Your task to perform on an android device: Clear the cart on costco. Add logitech g502 to the cart on costco Image 0: 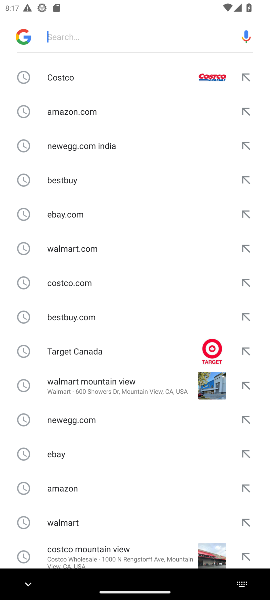
Step 0: press home button
Your task to perform on an android device: Clear the cart on costco. Add logitech g502 to the cart on costco Image 1: 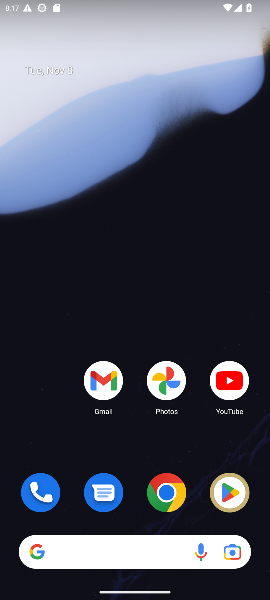
Step 1: click (166, 493)
Your task to perform on an android device: Clear the cart on costco. Add logitech g502 to the cart on costco Image 2: 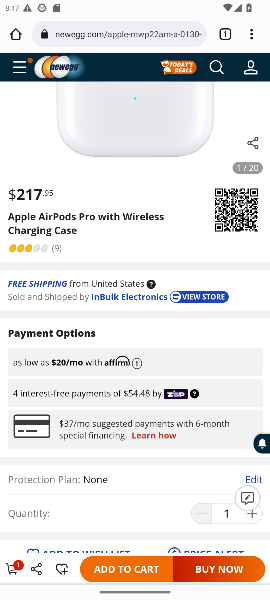
Step 2: click (77, 33)
Your task to perform on an android device: Clear the cart on costco. Add logitech g502 to the cart on costco Image 3: 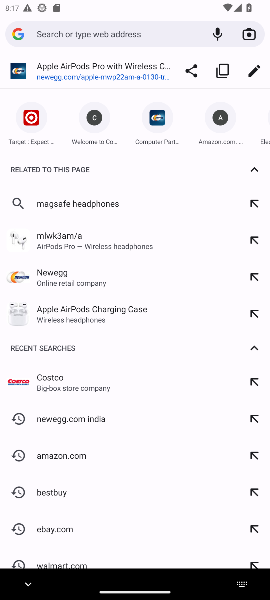
Step 3: type "costco"
Your task to perform on an android device: Clear the cart on costco. Add logitech g502 to the cart on costco Image 4: 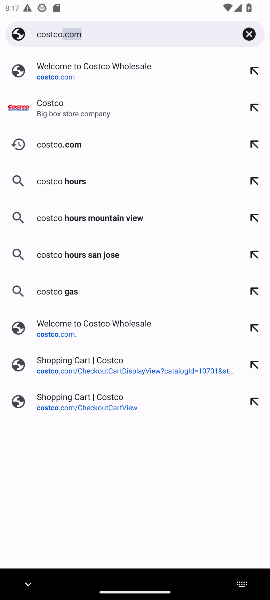
Step 4: press enter
Your task to perform on an android device: Clear the cart on costco. Add logitech g502 to the cart on costco Image 5: 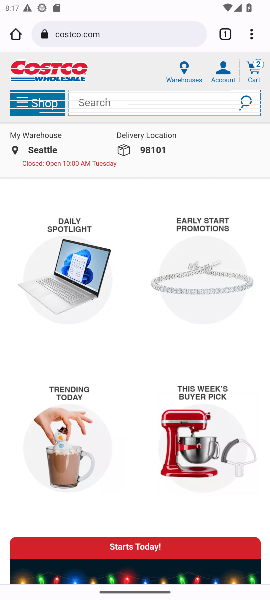
Step 5: click (247, 72)
Your task to perform on an android device: Clear the cart on costco. Add logitech g502 to the cart on costco Image 6: 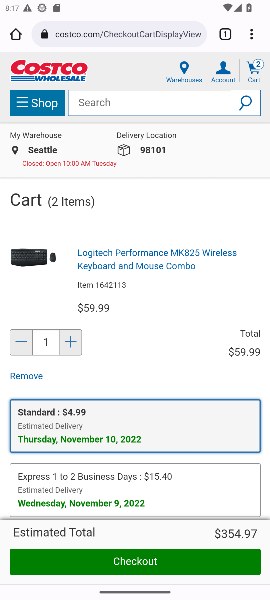
Step 6: drag from (125, 383) to (147, 262)
Your task to perform on an android device: Clear the cart on costco. Add logitech g502 to the cart on costco Image 7: 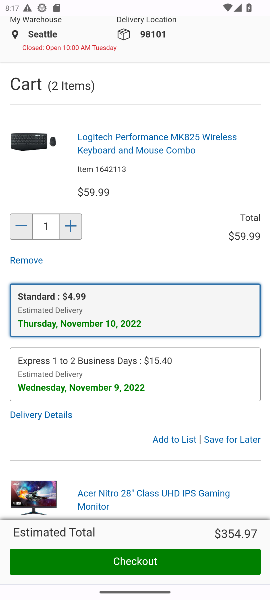
Step 7: click (20, 229)
Your task to perform on an android device: Clear the cart on costco. Add logitech g502 to the cart on costco Image 8: 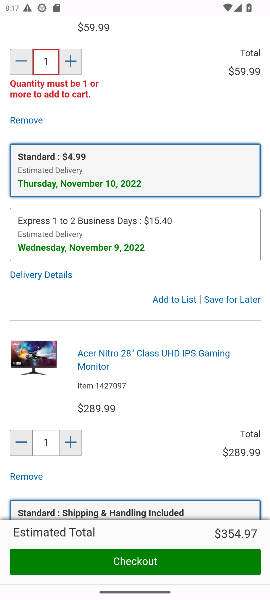
Step 8: click (21, 448)
Your task to perform on an android device: Clear the cart on costco. Add logitech g502 to the cart on costco Image 9: 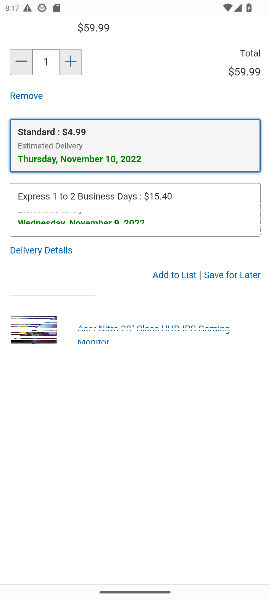
Step 9: click (17, 61)
Your task to perform on an android device: Clear the cart on costco. Add logitech g502 to the cart on costco Image 10: 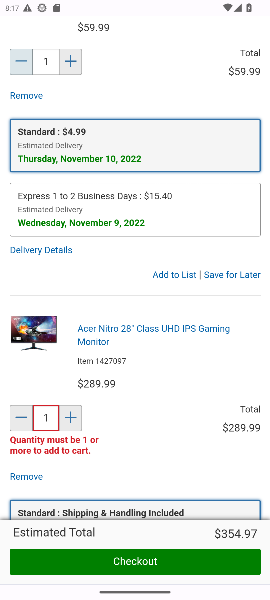
Step 10: click (17, 61)
Your task to perform on an android device: Clear the cart on costco. Add logitech g502 to the cart on costco Image 11: 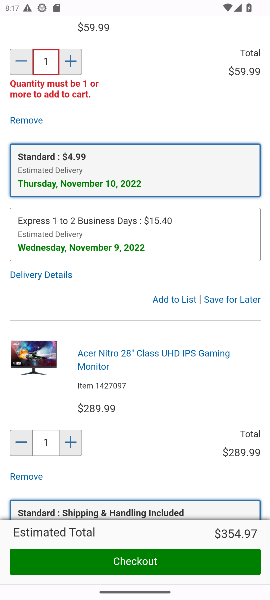
Step 11: click (14, 71)
Your task to perform on an android device: Clear the cart on costco. Add logitech g502 to the cart on costco Image 12: 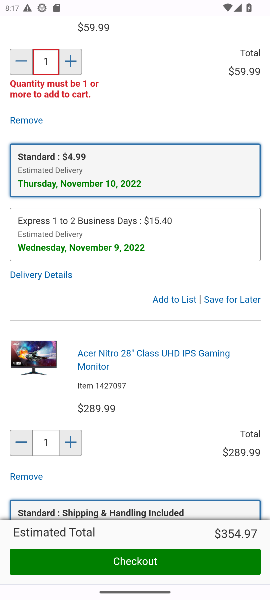
Step 12: click (23, 444)
Your task to perform on an android device: Clear the cart on costco. Add logitech g502 to the cart on costco Image 13: 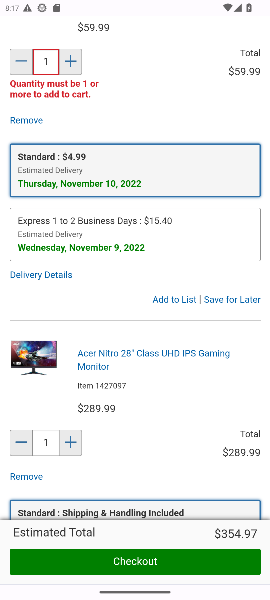
Step 13: click (23, 444)
Your task to perform on an android device: Clear the cart on costco. Add logitech g502 to the cart on costco Image 14: 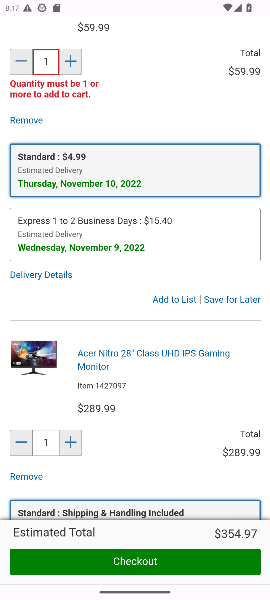
Step 14: click (24, 444)
Your task to perform on an android device: Clear the cart on costco. Add logitech g502 to the cart on costco Image 15: 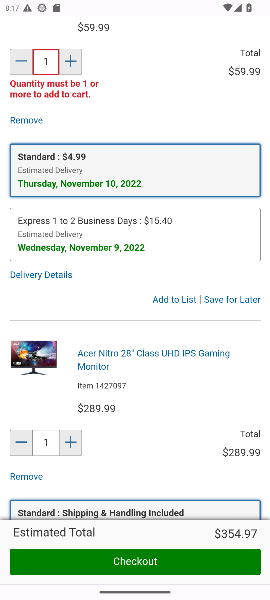
Step 15: click (23, 445)
Your task to perform on an android device: Clear the cart on costco. Add logitech g502 to the cart on costco Image 16: 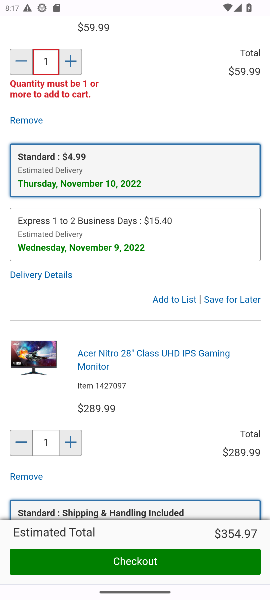
Step 16: click (23, 445)
Your task to perform on an android device: Clear the cart on costco. Add logitech g502 to the cart on costco Image 17: 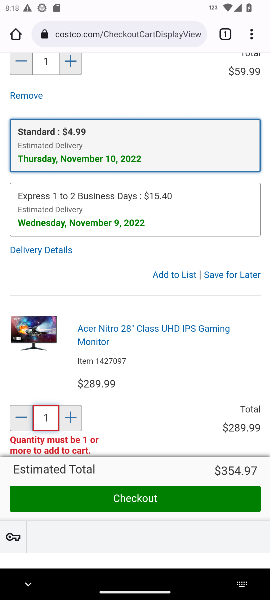
Step 17: task complete